Your task to perform on an android device: open chrome privacy settings Image 0: 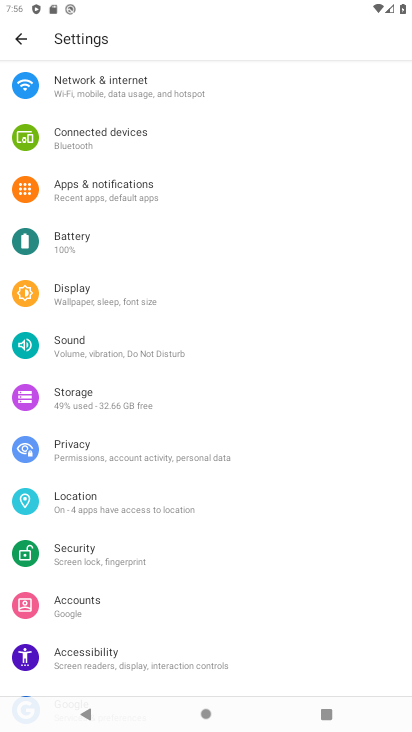
Step 0: press home button
Your task to perform on an android device: open chrome privacy settings Image 1: 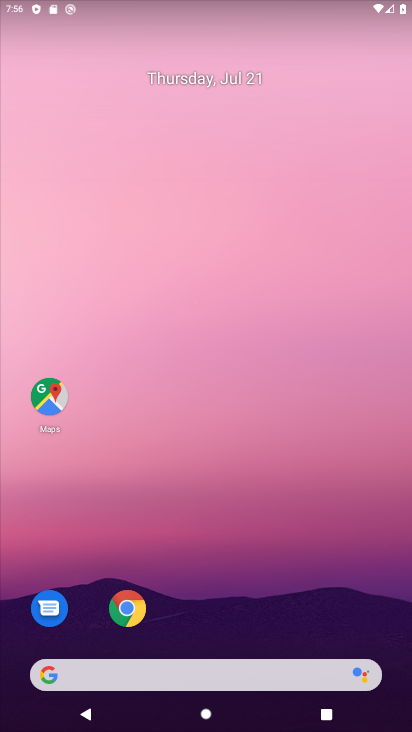
Step 1: click (135, 614)
Your task to perform on an android device: open chrome privacy settings Image 2: 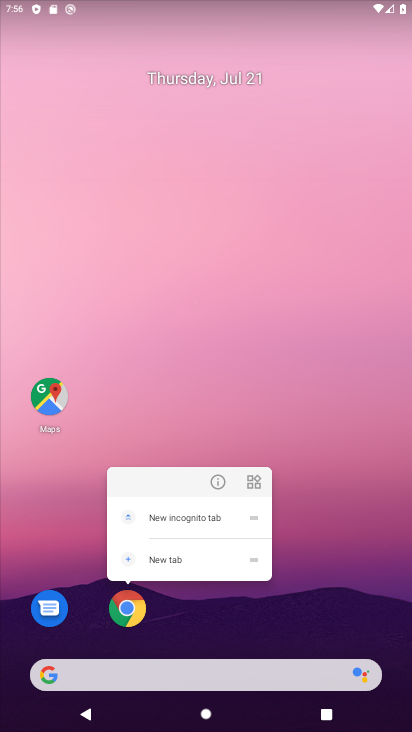
Step 2: click (125, 613)
Your task to perform on an android device: open chrome privacy settings Image 3: 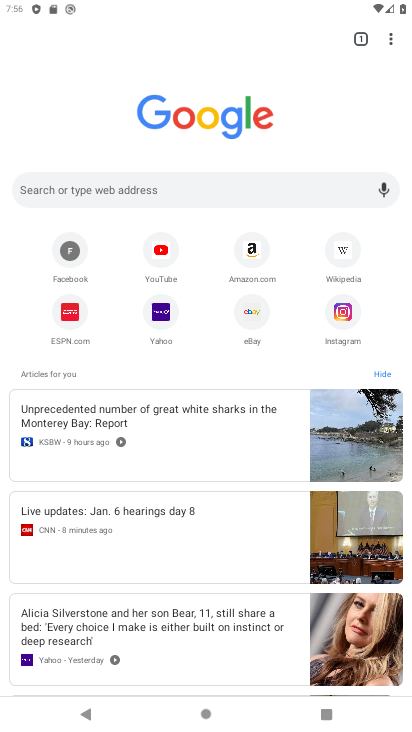
Step 3: click (395, 40)
Your task to perform on an android device: open chrome privacy settings Image 4: 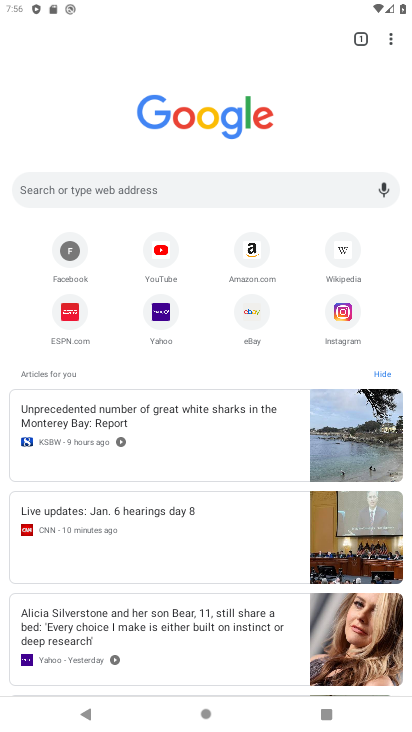
Step 4: click (393, 39)
Your task to perform on an android device: open chrome privacy settings Image 5: 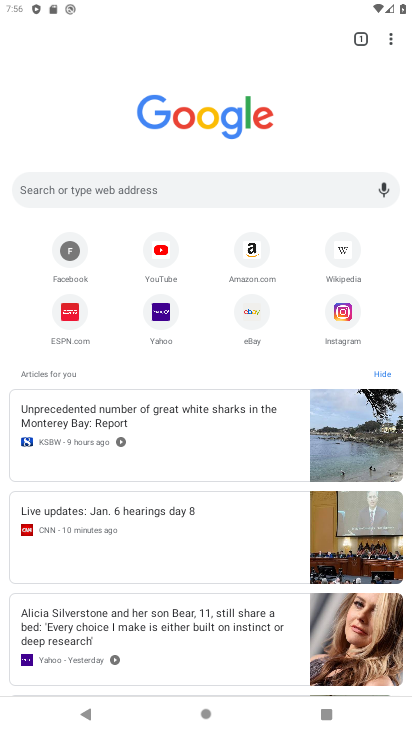
Step 5: click (394, 35)
Your task to perform on an android device: open chrome privacy settings Image 6: 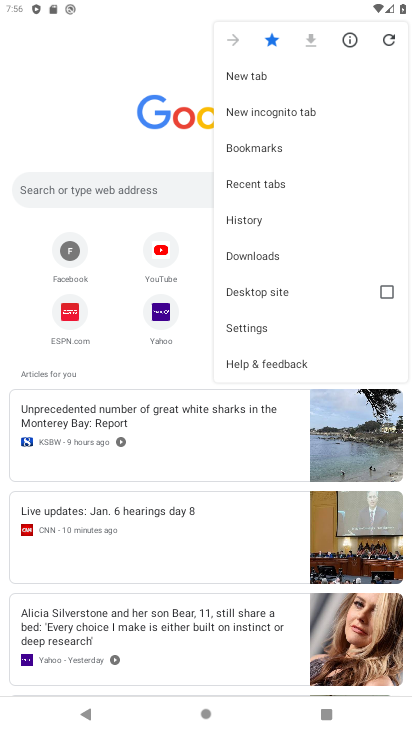
Step 6: click (225, 320)
Your task to perform on an android device: open chrome privacy settings Image 7: 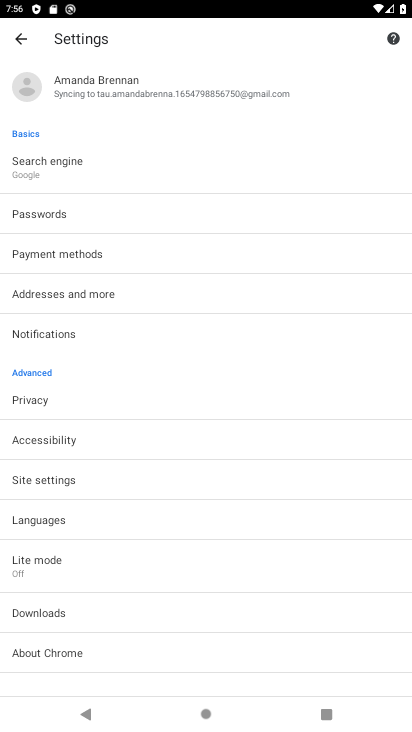
Step 7: click (27, 397)
Your task to perform on an android device: open chrome privacy settings Image 8: 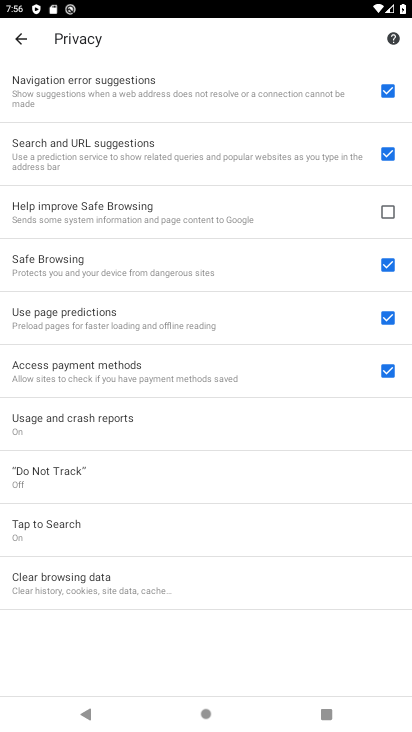
Step 8: task complete